Your task to perform on an android device: change text size in settings app Image 0: 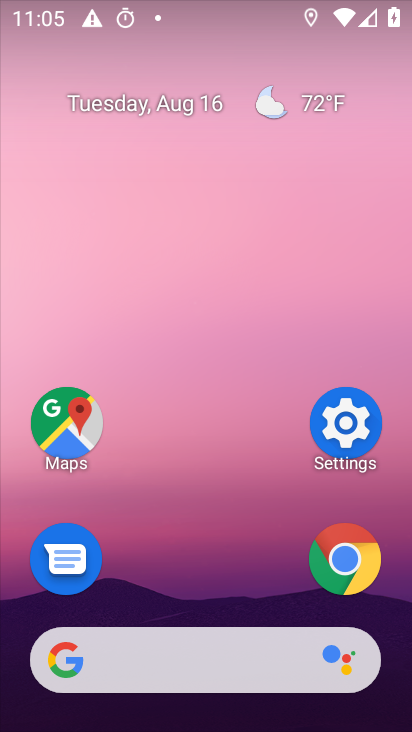
Step 0: click (335, 423)
Your task to perform on an android device: change text size in settings app Image 1: 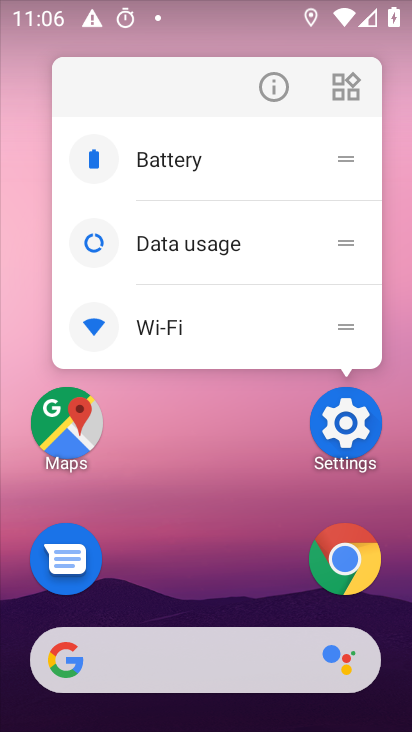
Step 1: click (348, 420)
Your task to perform on an android device: change text size in settings app Image 2: 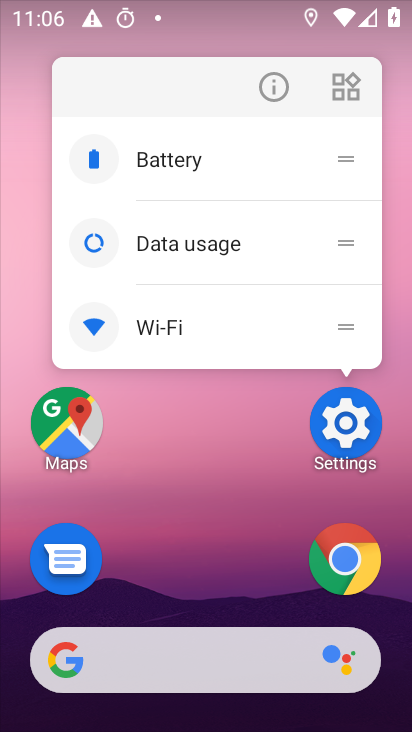
Step 2: click (348, 418)
Your task to perform on an android device: change text size in settings app Image 3: 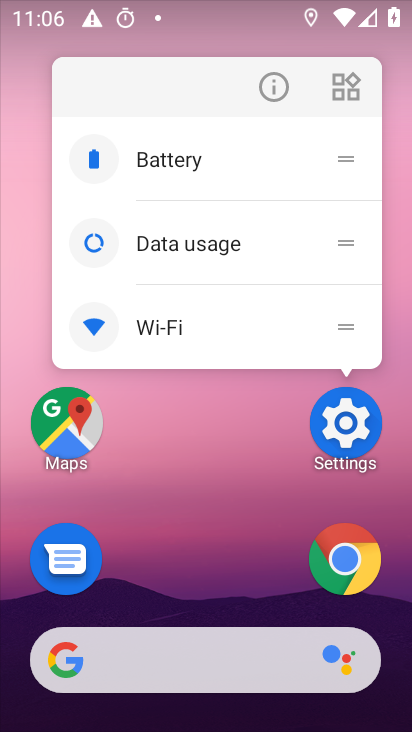
Step 3: click (348, 416)
Your task to perform on an android device: change text size in settings app Image 4: 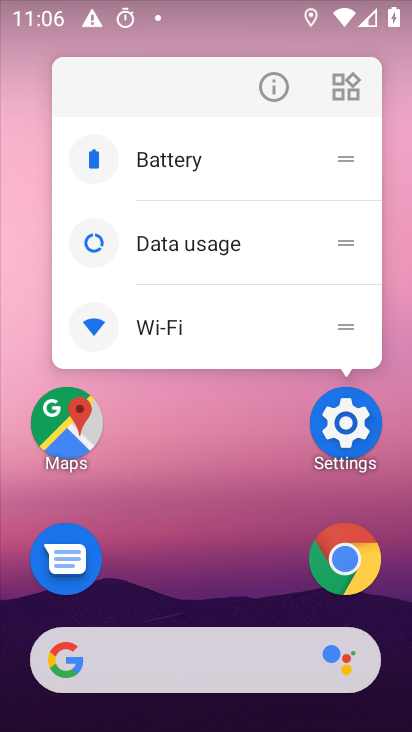
Step 4: click (349, 429)
Your task to perform on an android device: change text size in settings app Image 5: 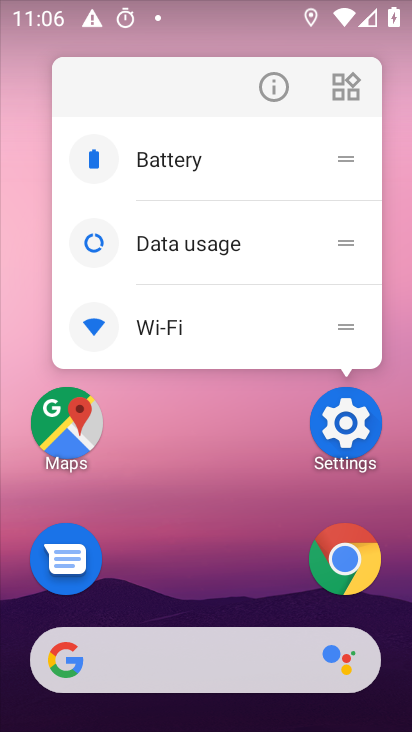
Step 5: click (336, 425)
Your task to perform on an android device: change text size in settings app Image 6: 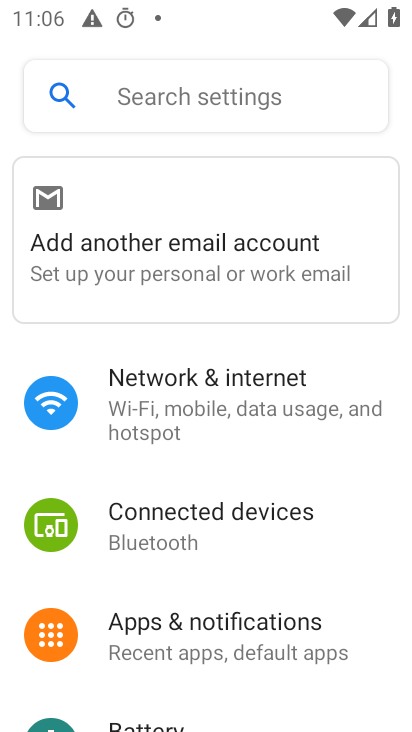
Step 6: drag from (238, 645) to (353, 157)
Your task to perform on an android device: change text size in settings app Image 7: 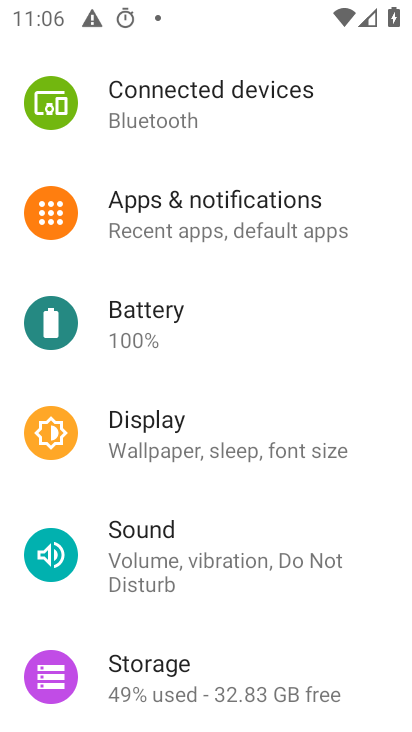
Step 7: click (219, 443)
Your task to perform on an android device: change text size in settings app Image 8: 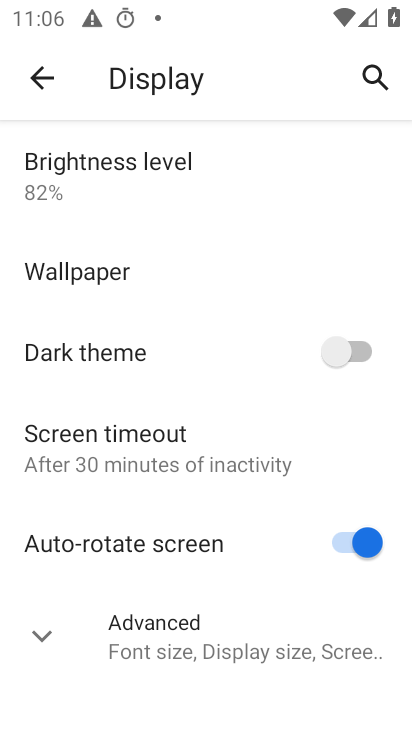
Step 8: click (194, 639)
Your task to perform on an android device: change text size in settings app Image 9: 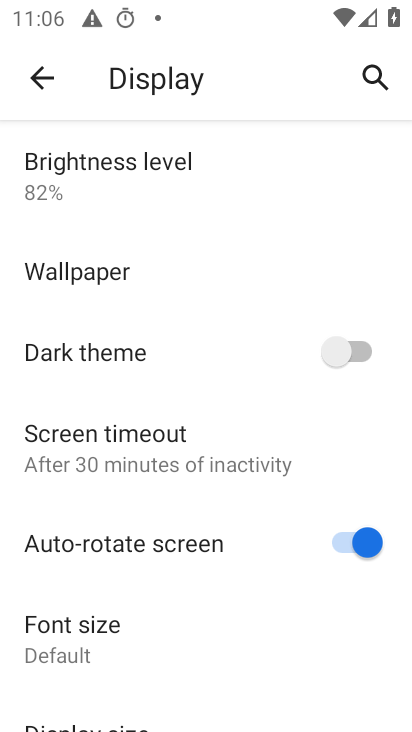
Step 9: click (86, 623)
Your task to perform on an android device: change text size in settings app Image 10: 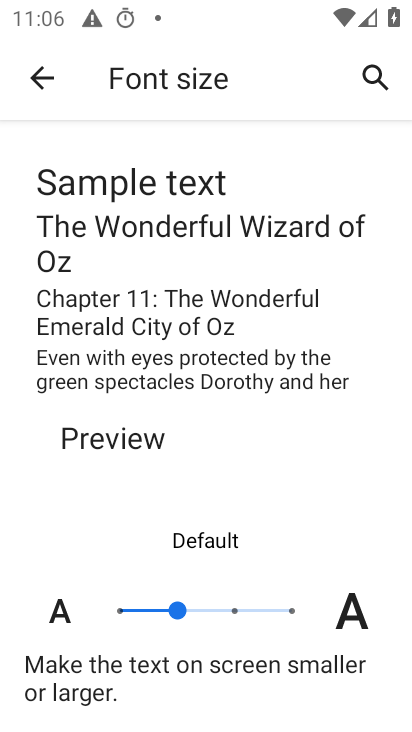
Step 10: click (122, 608)
Your task to perform on an android device: change text size in settings app Image 11: 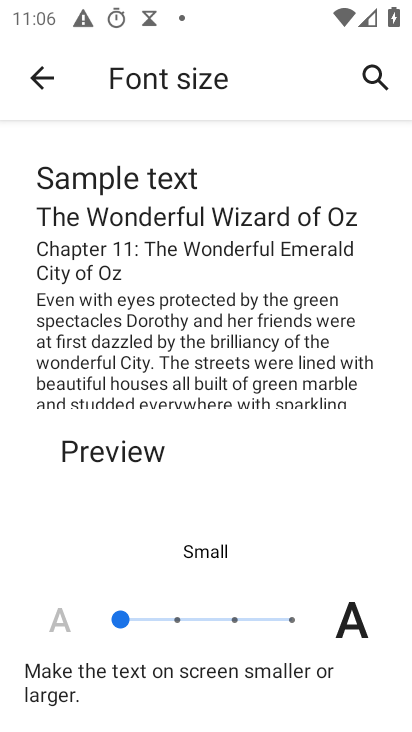
Step 11: task complete